Your task to perform on an android device: turn on bluetooth scan Image 0: 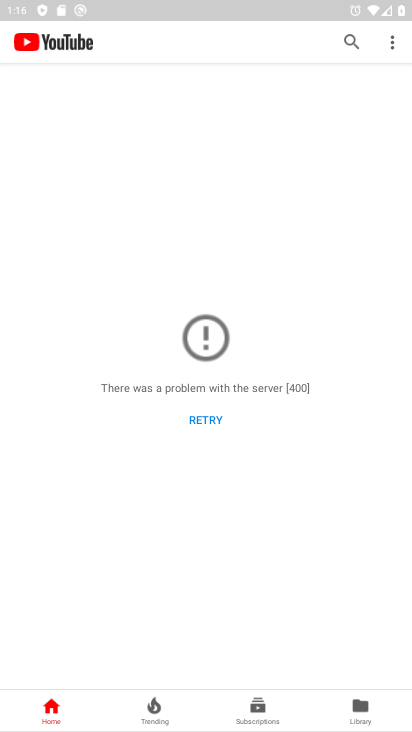
Step 0: press back button
Your task to perform on an android device: turn on bluetooth scan Image 1: 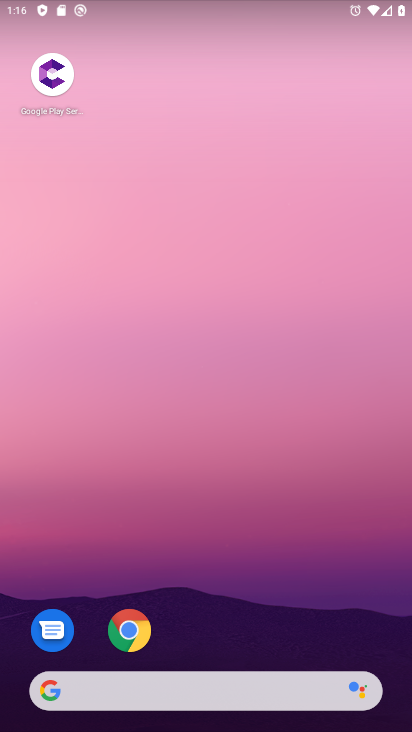
Step 1: drag from (9, 598) to (199, 176)
Your task to perform on an android device: turn on bluetooth scan Image 2: 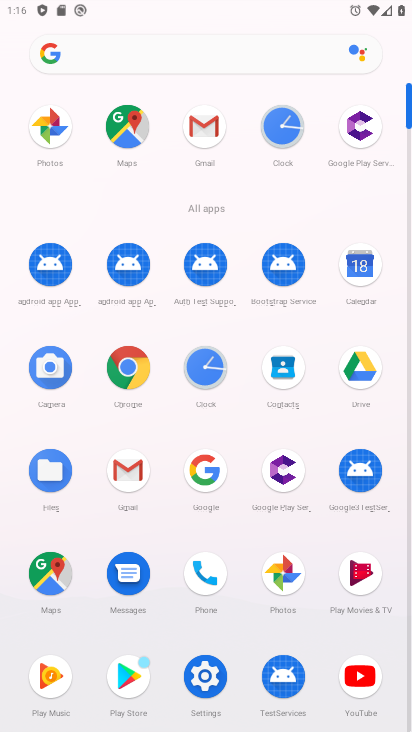
Step 2: click (217, 664)
Your task to perform on an android device: turn on bluetooth scan Image 3: 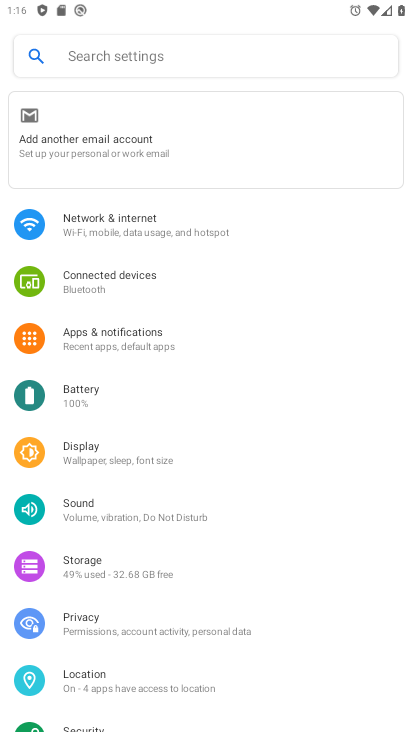
Step 3: click (141, 681)
Your task to perform on an android device: turn on bluetooth scan Image 4: 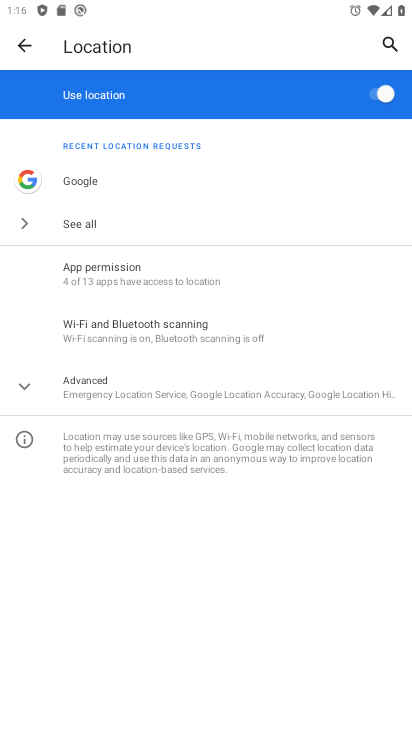
Step 4: click (176, 338)
Your task to perform on an android device: turn on bluetooth scan Image 5: 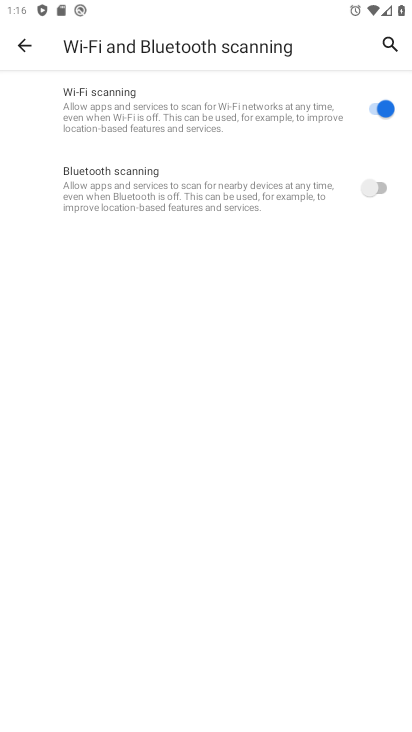
Step 5: click (371, 195)
Your task to perform on an android device: turn on bluetooth scan Image 6: 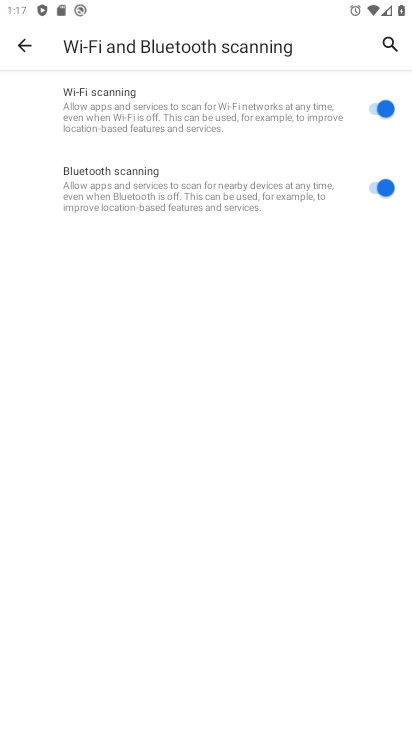
Step 6: task complete